Your task to perform on an android device: Go to wifi settings Image 0: 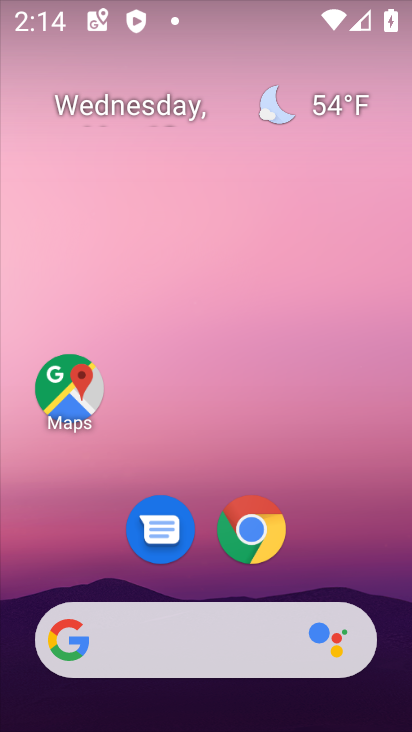
Step 0: drag from (66, 15) to (138, 617)
Your task to perform on an android device: Go to wifi settings Image 1: 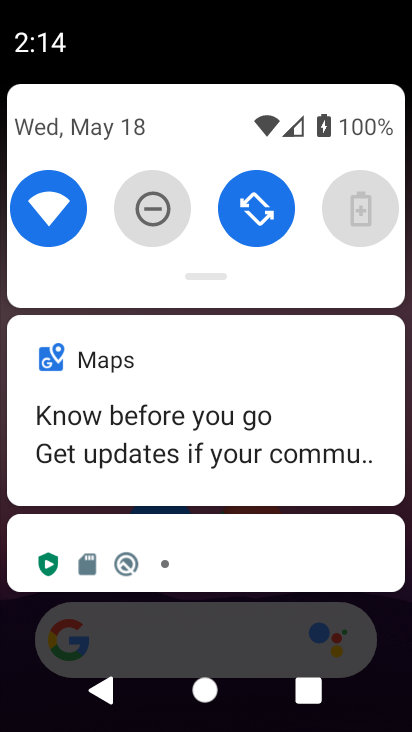
Step 1: click (51, 204)
Your task to perform on an android device: Go to wifi settings Image 2: 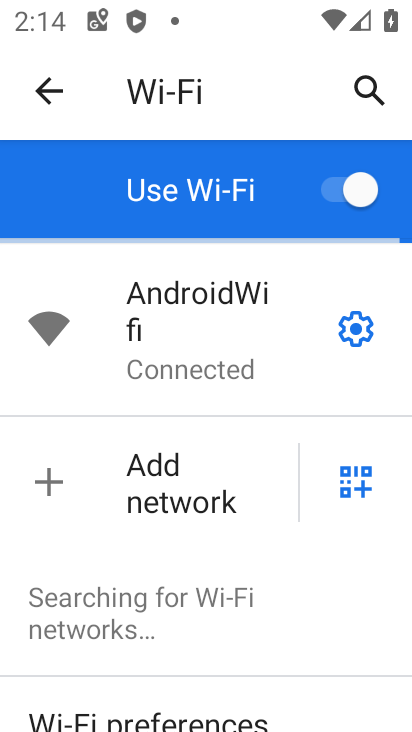
Step 2: task complete